Your task to perform on an android device: turn on translation in the chrome app Image 0: 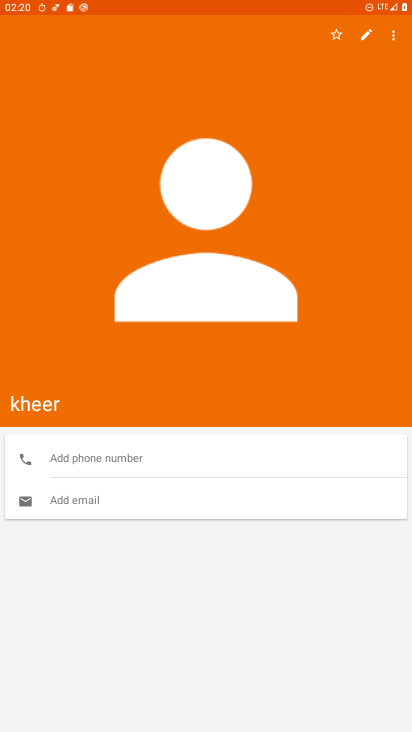
Step 0: press home button
Your task to perform on an android device: turn on translation in the chrome app Image 1: 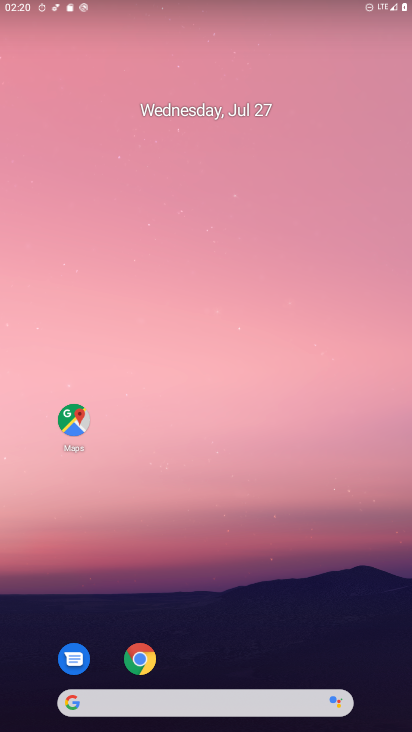
Step 1: drag from (261, 624) to (199, 130)
Your task to perform on an android device: turn on translation in the chrome app Image 2: 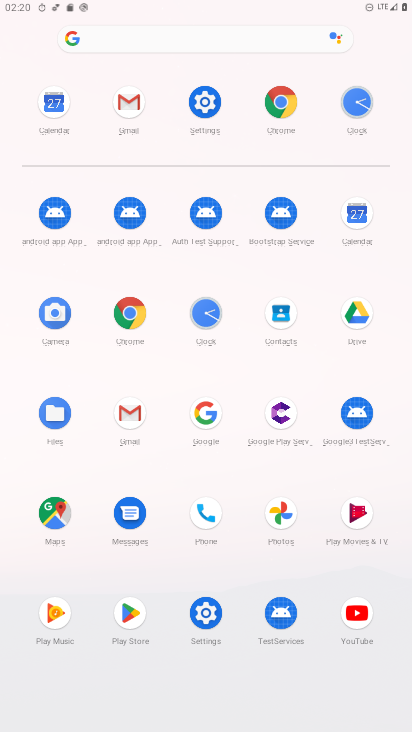
Step 2: click (126, 310)
Your task to perform on an android device: turn on translation in the chrome app Image 3: 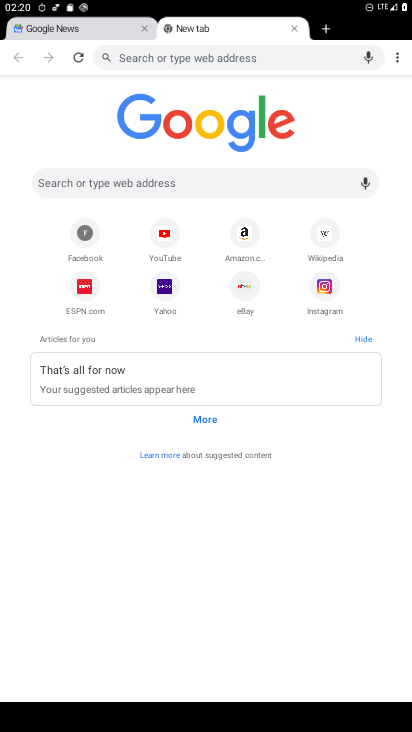
Step 3: drag from (397, 54) to (299, 266)
Your task to perform on an android device: turn on translation in the chrome app Image 4: 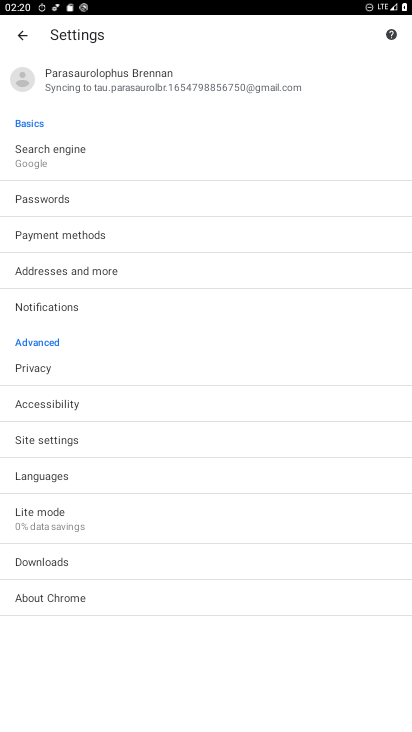
Step 4: click (65, 472)
Your task to perform on an android device: turn on translation in the chrome app Image 5: 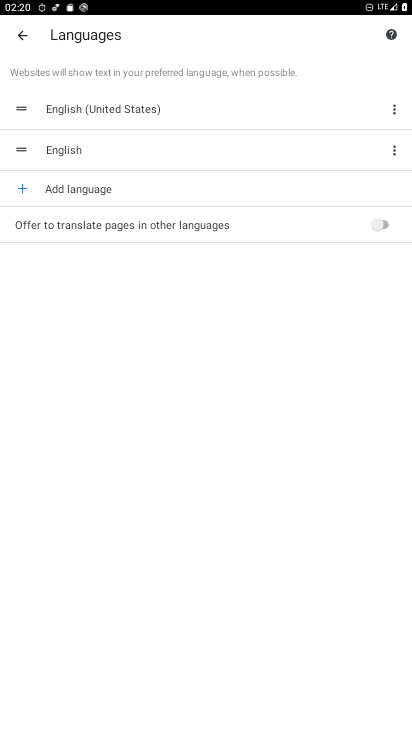
Step 5: click (382, 236)
Your task to perform on an android device: turn on translation in the chrome app Image 6: 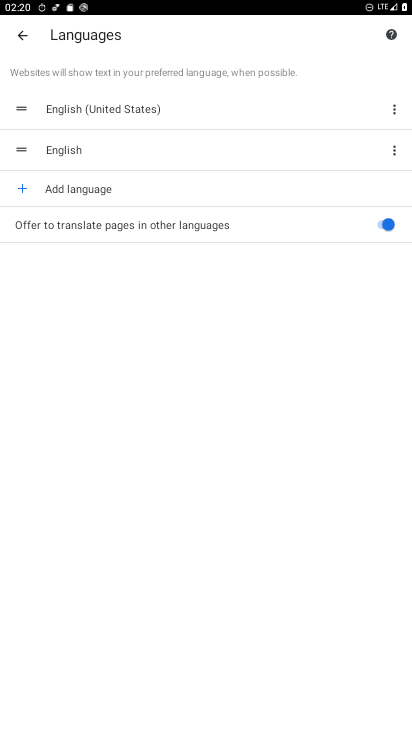
Step 6: task complete